Your task to perform on an android device: Search for macbook pro 13 inch on target, select the first entry, add it to the cart, then select checkout. Image 0: 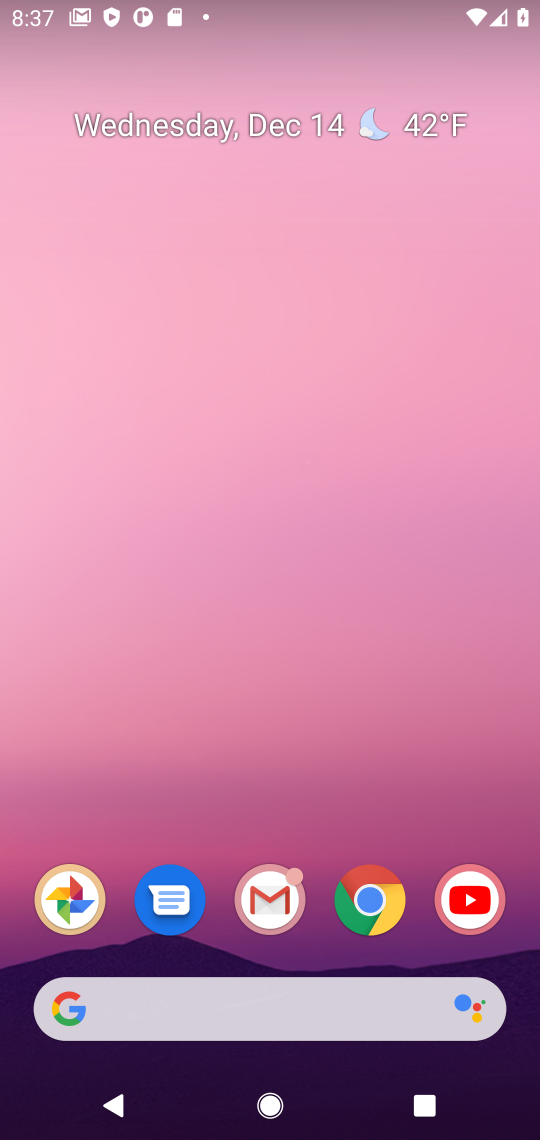
Step 0: click (355, 917)
Your task to perform on an android device: Search for macbook pro 13 inch on target, select the first entry, add it to the cart, then select checkout. Image 1: 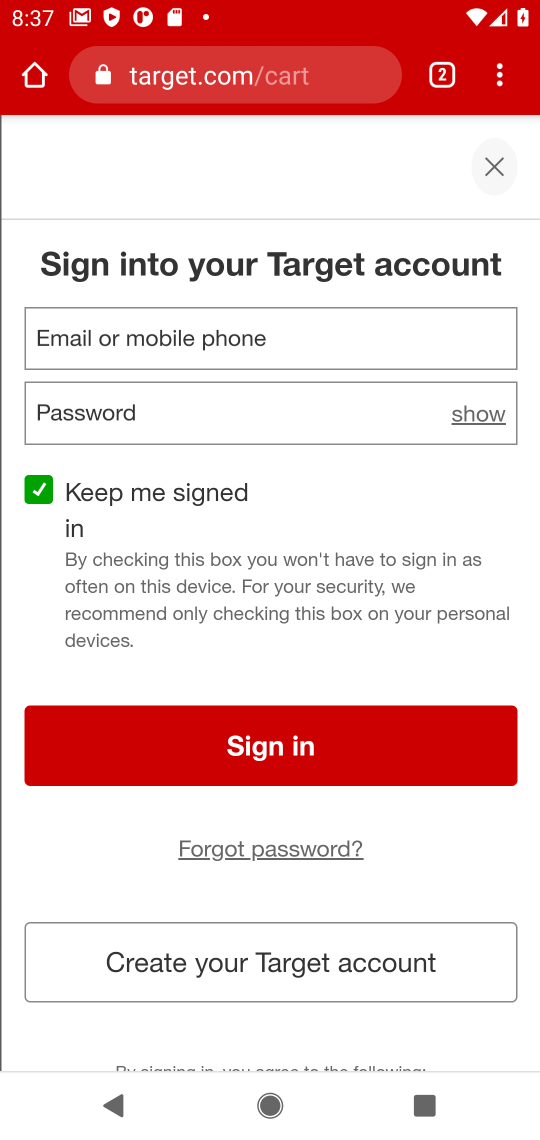
Step 1: press back button
Your task to perform on an android device: Search for macbook pro 13 inch on target, select the first entry, add it to the cart, then select checkout. Image 2: 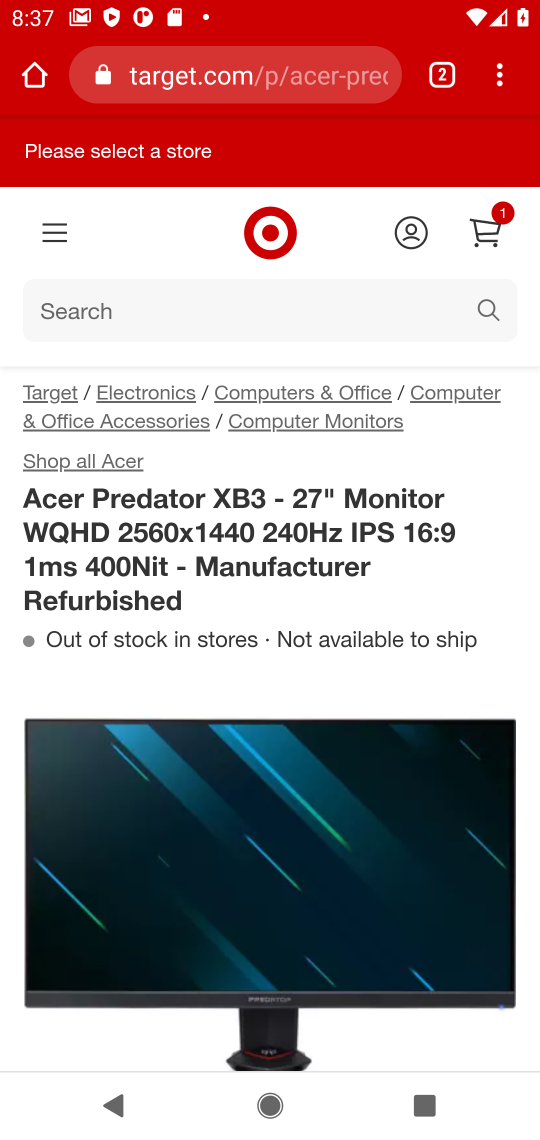
Step 2: click (303, 305)
Your task to perform on an android device: Search for macbook pro 13 inch on target, select the first entry, add it to the cart, then select checkout. Image 3: 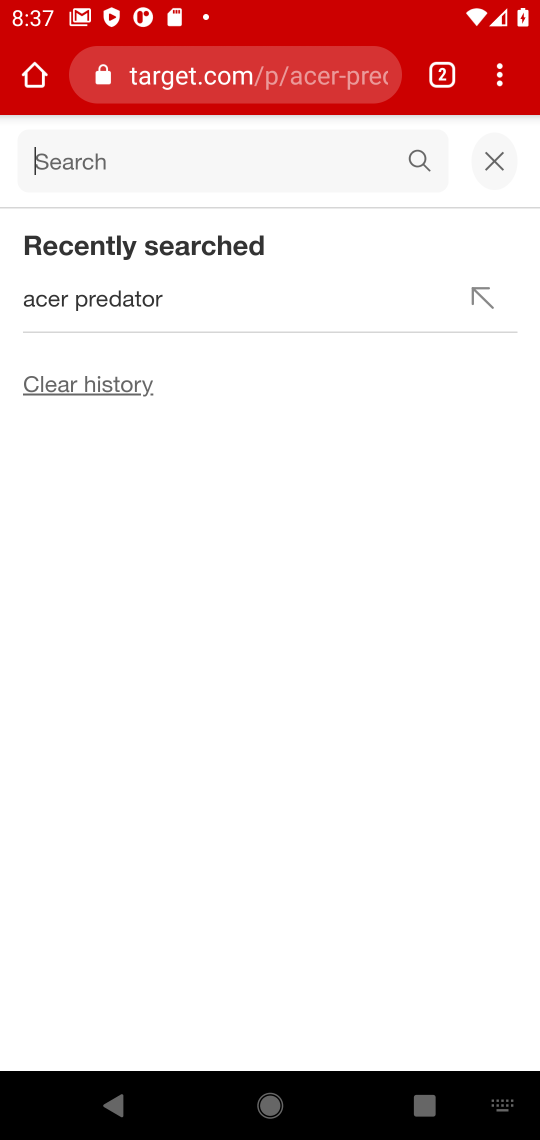
Step 3: type "macbook pro 13 inch"
Your task to perform on an android device: Search for macbook pro 13 inch on target, select the first entry, add it to the cart, then select checkout. Image 4: 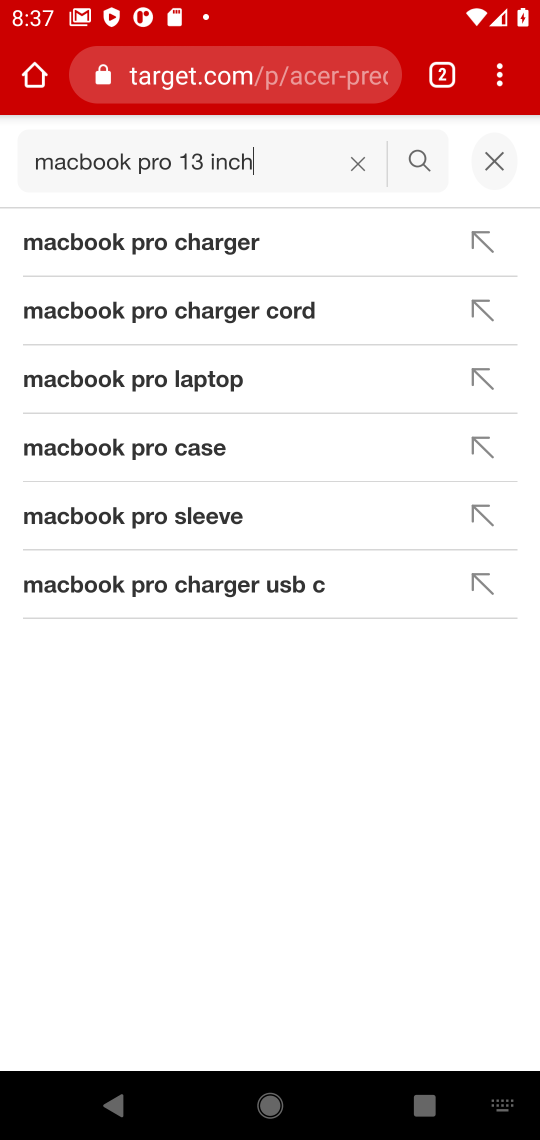
Step 4: click (423, 148)
Your task to perform on an android device: Search for macbook pro 13 inch on target, select the first entry, add it to the cart, then select checkout. Image 5: 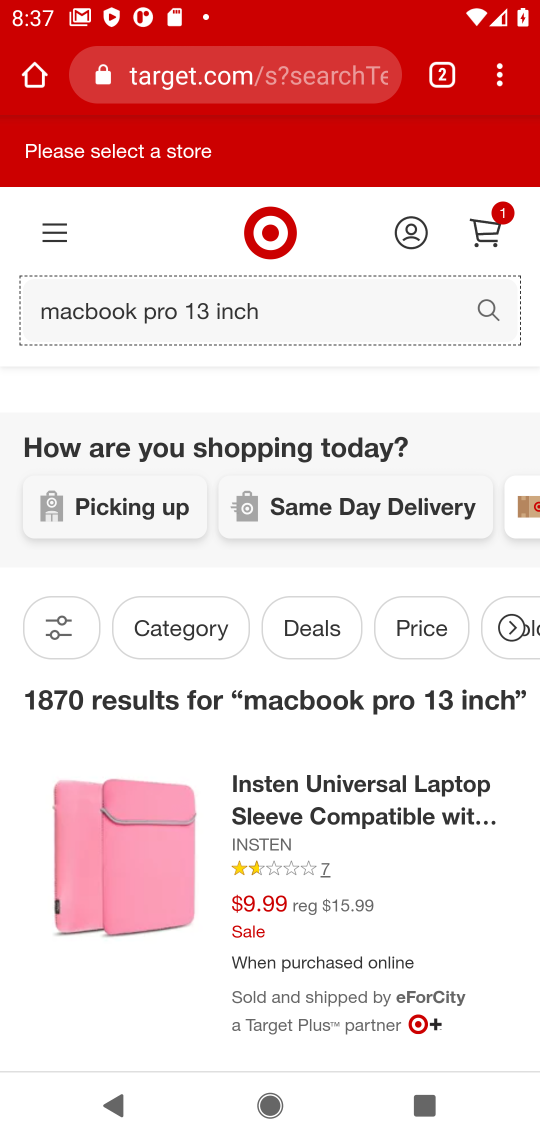
Step 5: task complete